Your task to perform on an android device: What's the weather going to be tomorrow? Image 0: 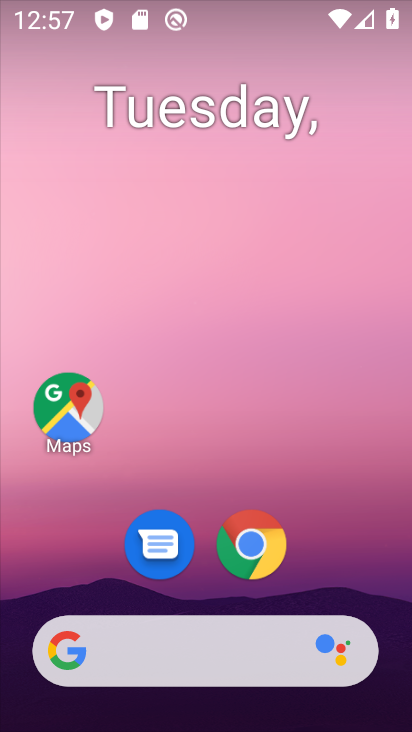
Step 0: click (214, 641)
Your task to perform on an android device: What's the weather going to be tomorrow? Image 1: 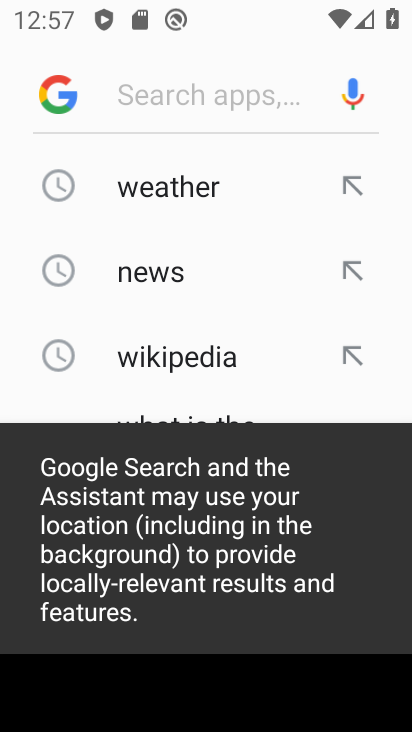
Step 1: click (169, 192)
Your task to perform on an android device: What's the weather going to be tomorrow? Image 2: 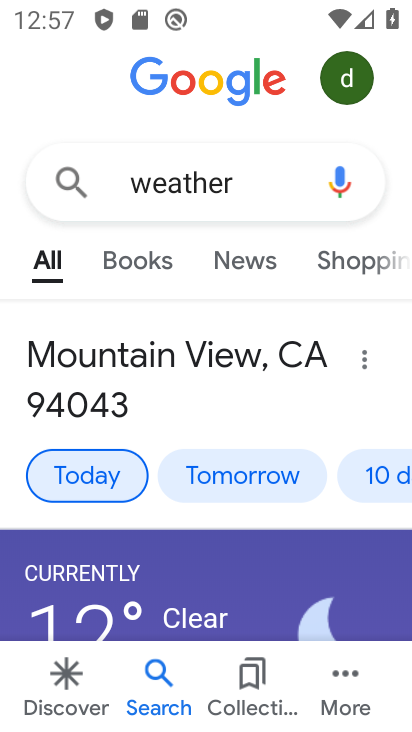
Step 2: click (243, 478)
Your task to perform on an android device: What's the weather going to be tomorrow? Image 3: 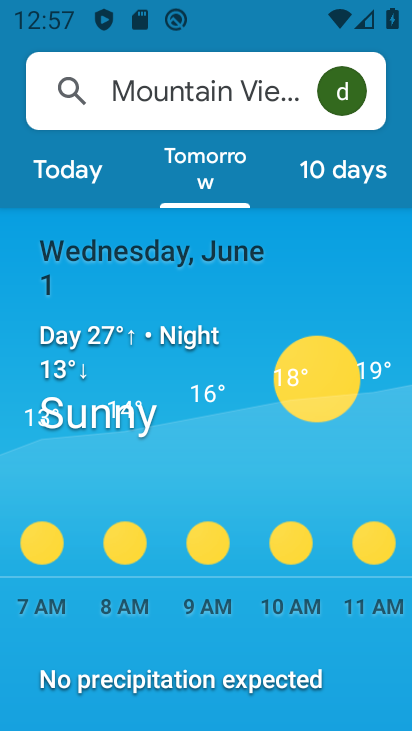
Step 3: task complete